Your task to perform on an android device: Open Google Maps Image 0: 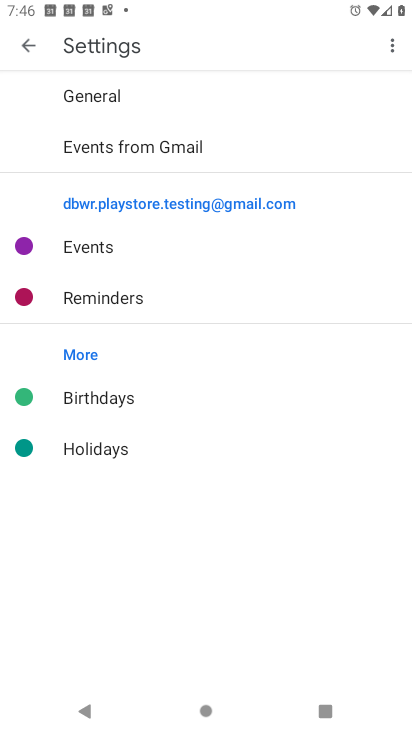
Step 0: press home button
Your task to perform on an android device: Open Google Maps Image 1: 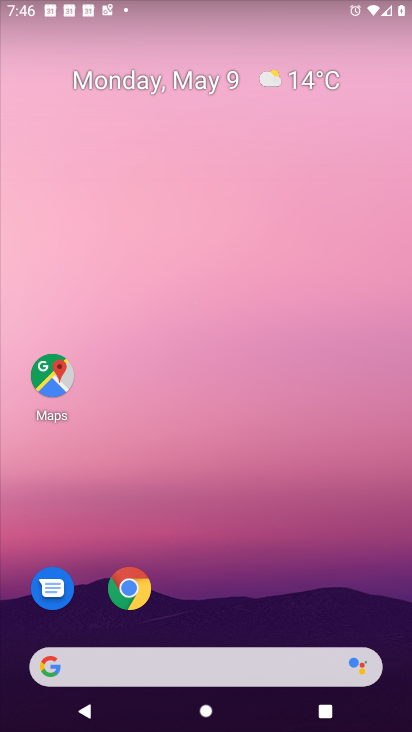
Step 1: drag from (295, 559) to (275, 72)
Your task to perform on an android device: Open Google Maps Image 2: 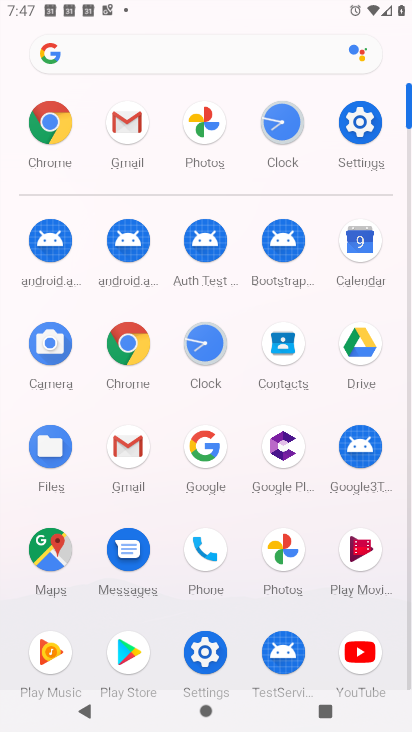
Step 2: click (28, 549)
Your task to perform on an android device: Open Google Maps Image 3: 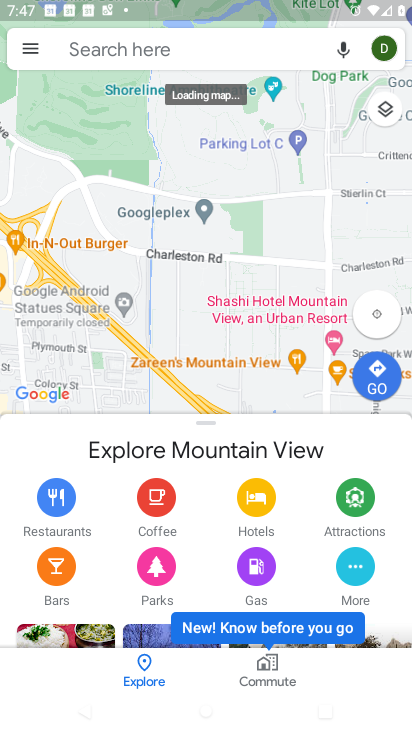
Step 3: task complete